Your task to perform on an android device: turn off improve location accuracy Image 0: 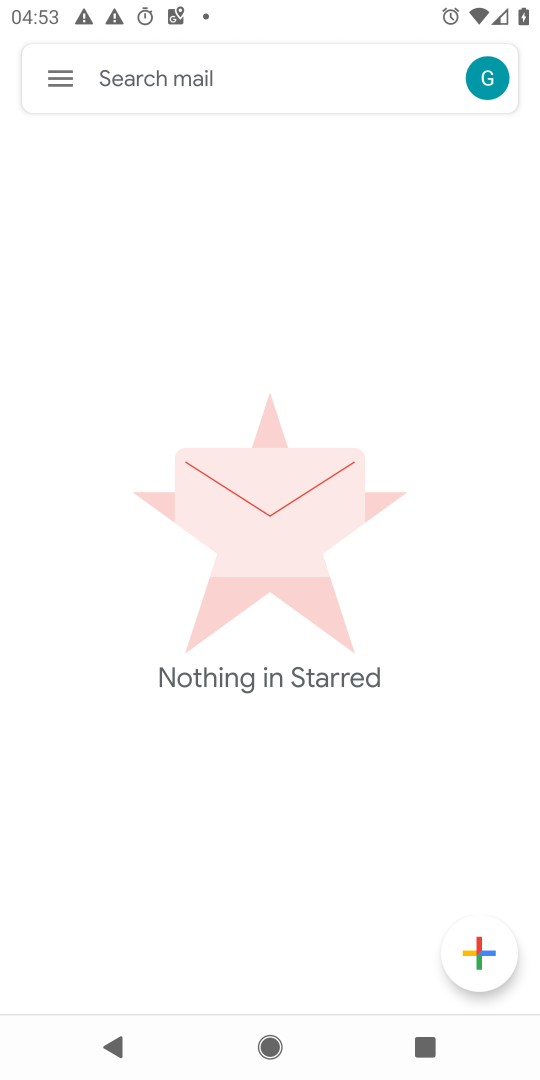
Step 0: press home button
Your task to perform on an android device: turn off improve location accuracy Image 1: 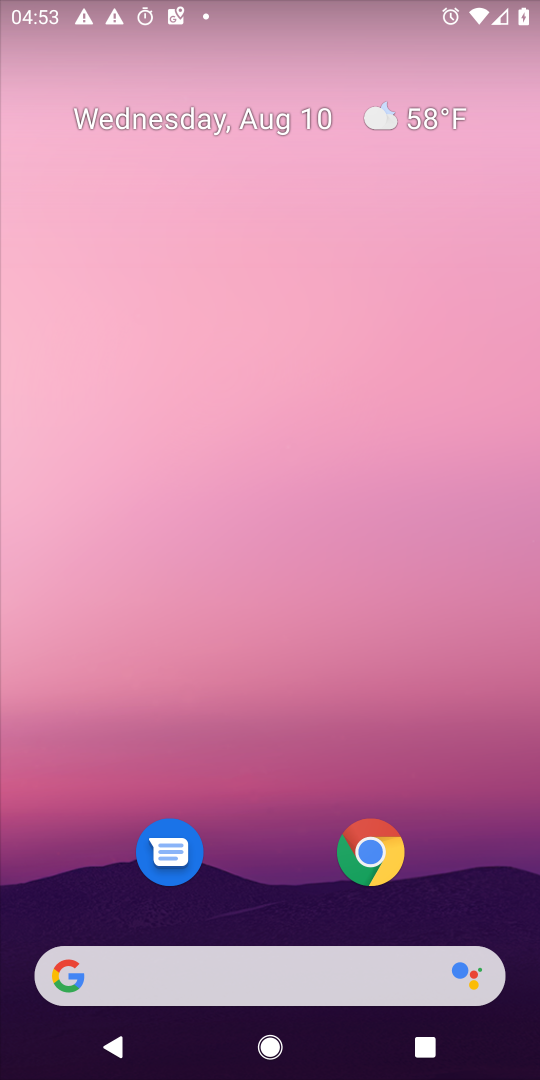
Step 1: drag from (269, 866) to (281, 82)
Your task to perform on an android device: turn off improve location accuracy Image 2: 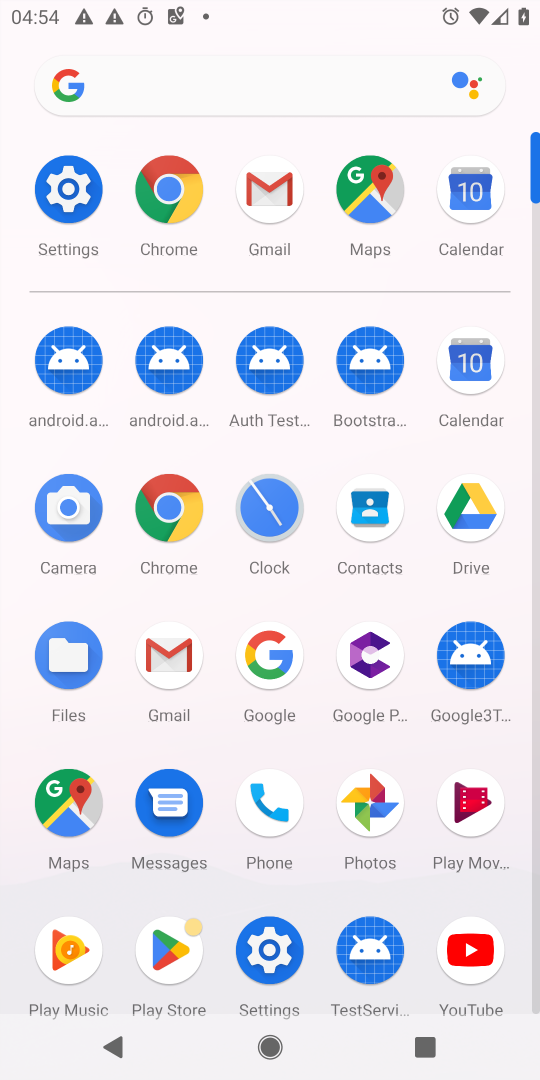
Step 2: click (40, 186)
Your task to perform on an android device: turn off improve location accuracy Image 3: 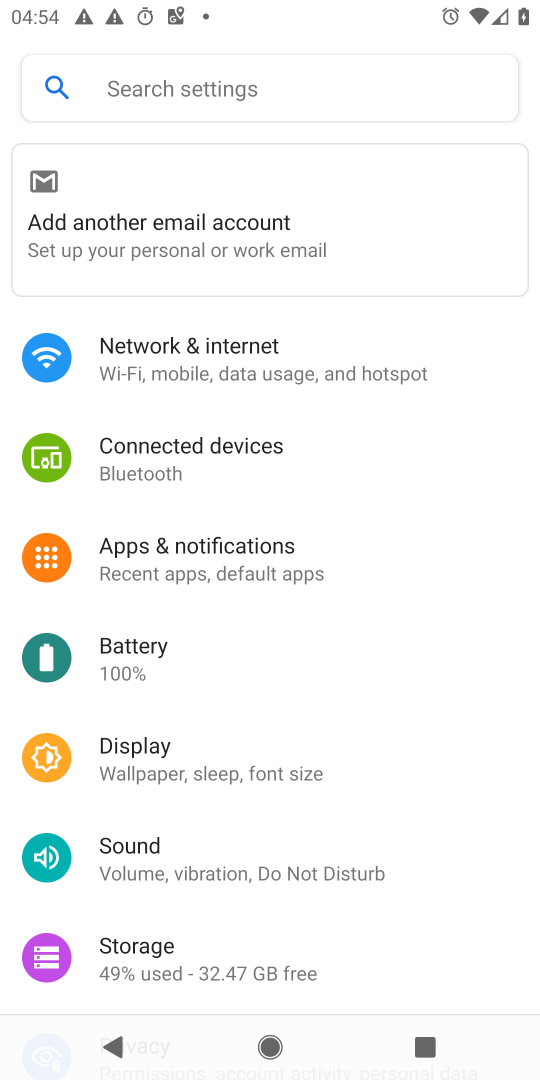
Step 3: drag from (414, 682) to (391, 309)
Your task to perform on an android device: turn off improve location accuracy Image 4: 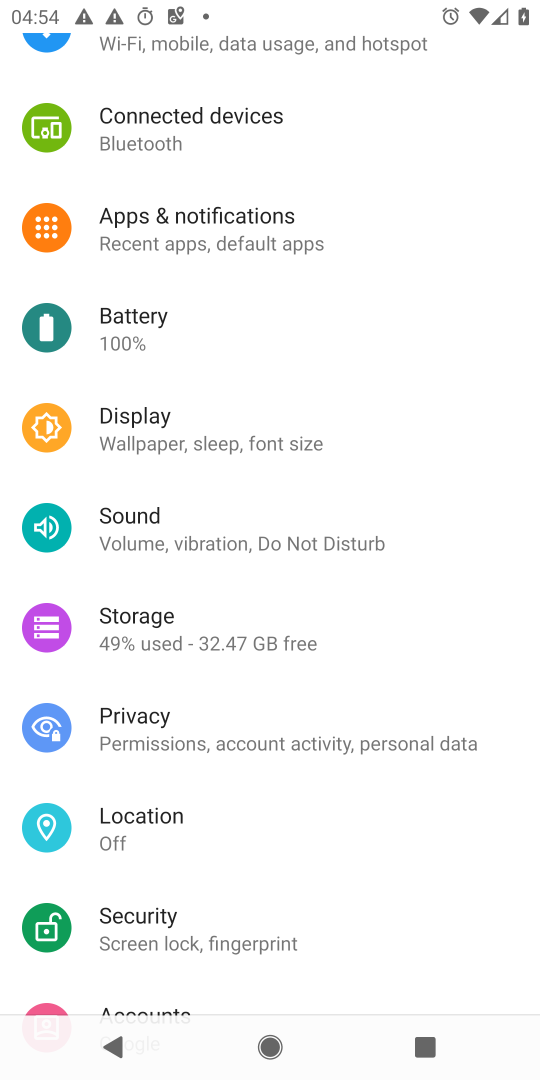
Step 4: click (122, 816)
Your task to perform on an android device: turn off improve location accuracy Image 5: 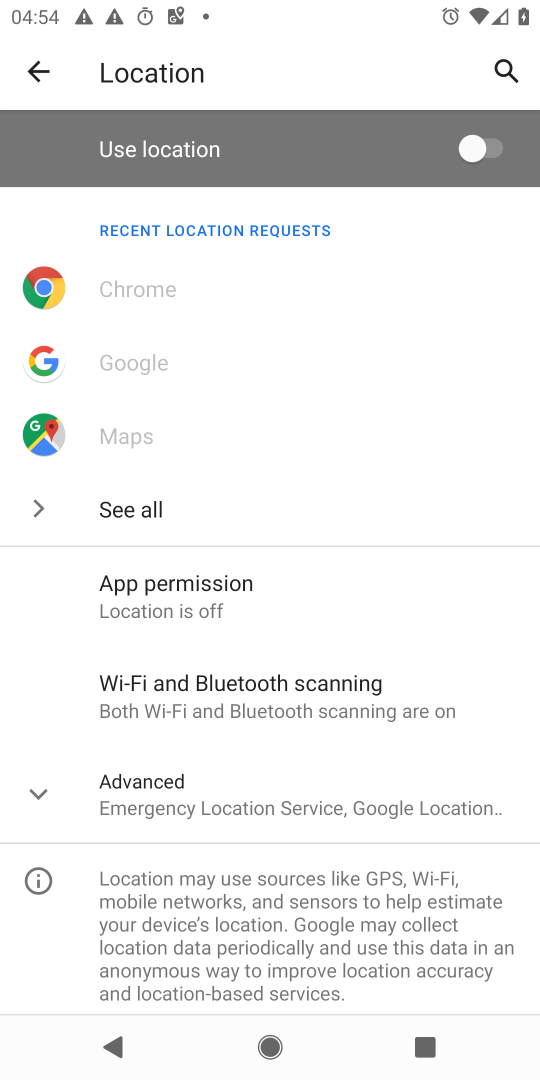
Step 5: click (122, 816)
Your task to perform on an android device: turn off improve location accuracy Image 6: 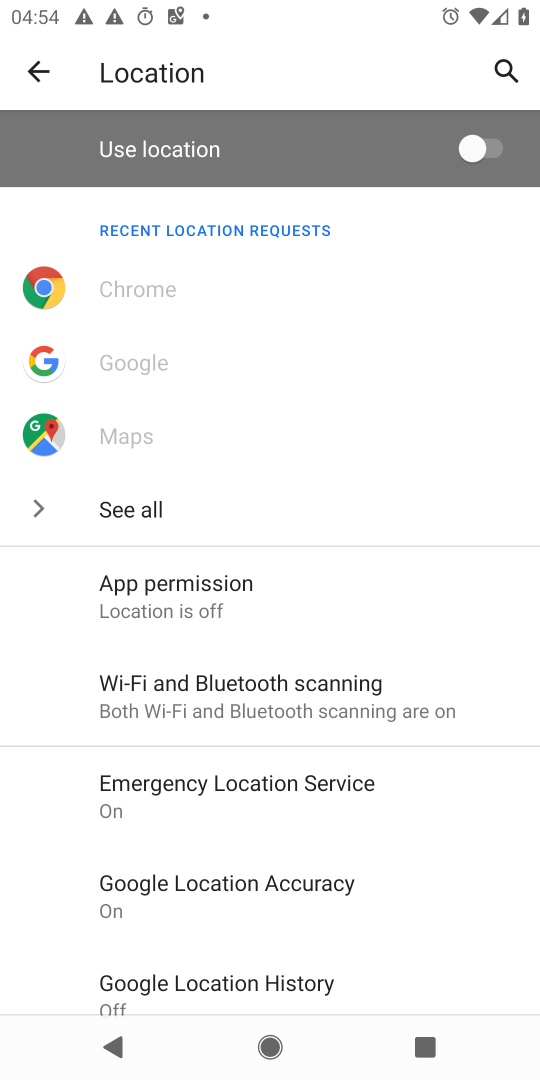
Step 6: click (191, 875)
Your task to perform on an android device: turn off improve location accuracy Image 7: 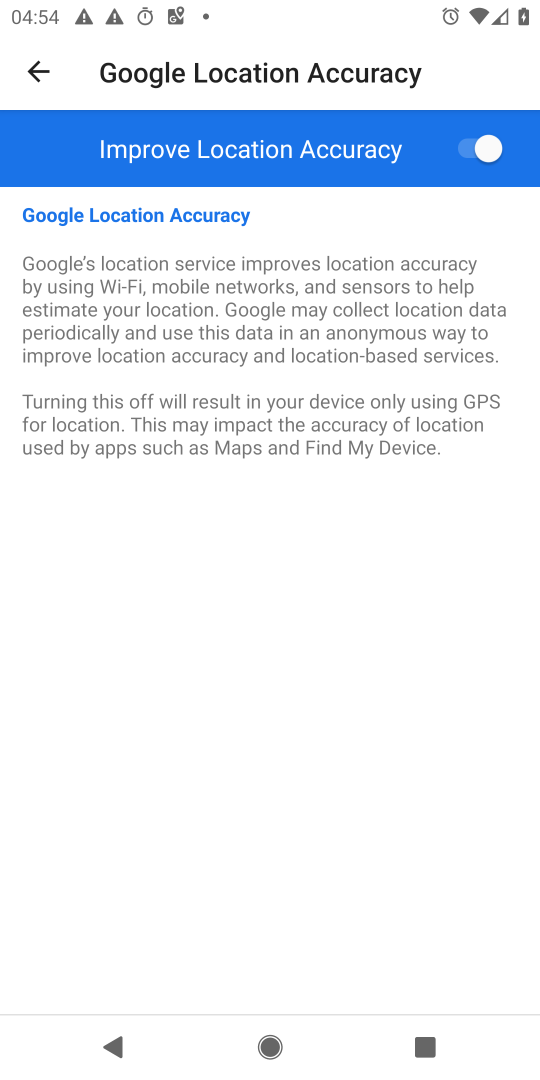
Step 7: click (496, 136)
Your task to perform on an android device: turn off improve location accuracy Image 8: 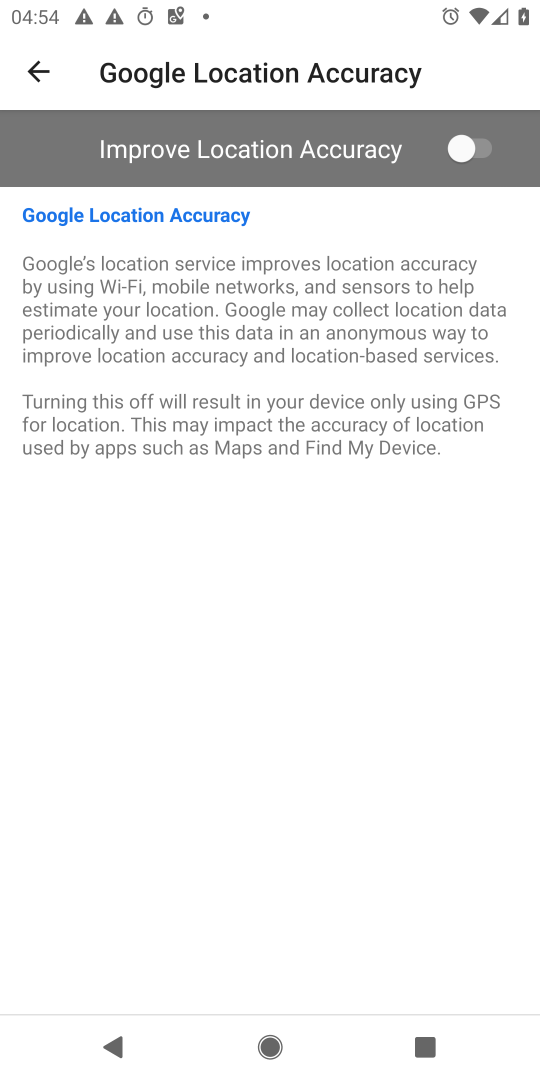
Step 8: task complete